Your task to perform on an android device: change the upload size in google photos Image 0: 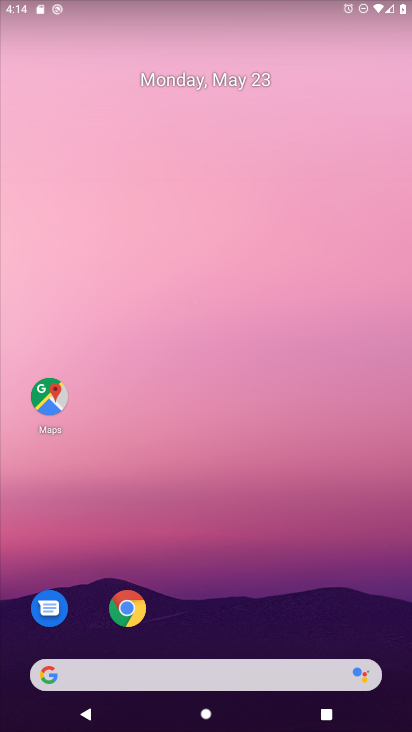
Step 0: drag from (245, 603) to (247, 278)
Your task to perform on an android device: change the upload size in google photos Image 1: 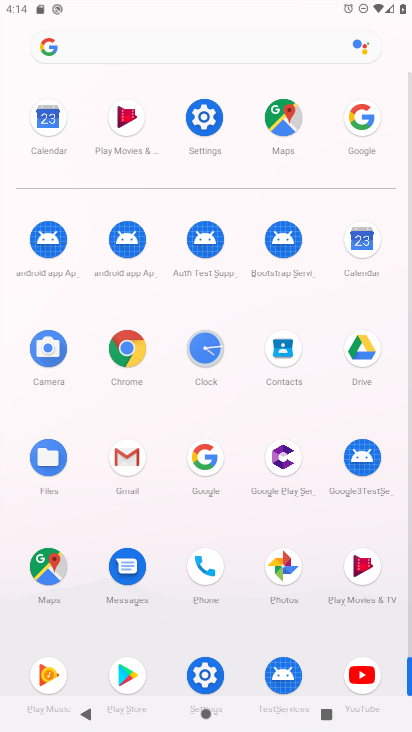
Step 1: click (284, 566)
Your task to perform on an android device: change the upload size in google photos Image 2: 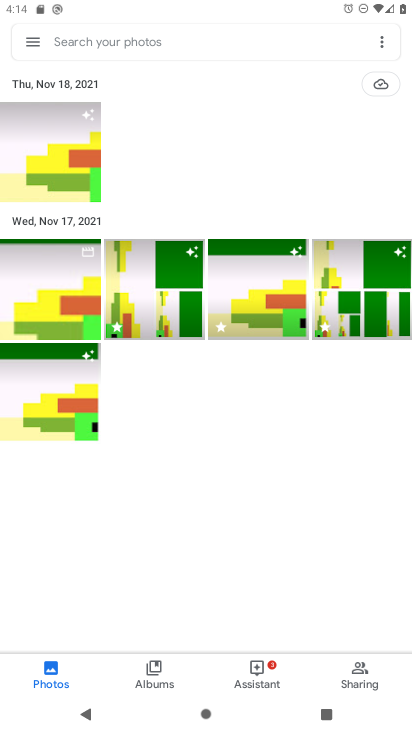
Step 2: click (35, 38)
Your task to perform on an android device: change the upload size in google photos Image 3: 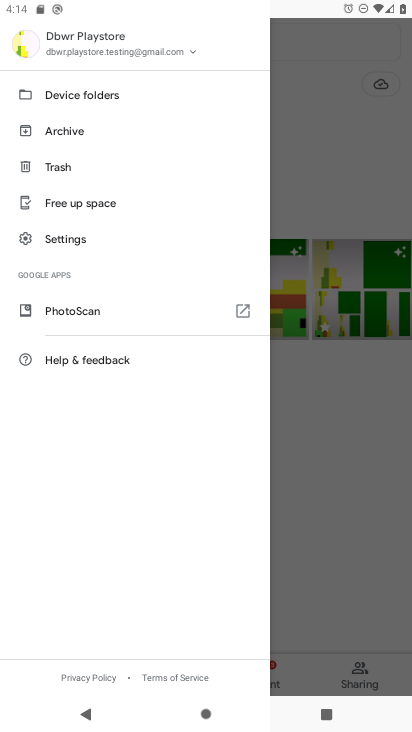
Step 3: click (53, 238)
Your task to perform on an android device: change the upload size in google photos Image 4: 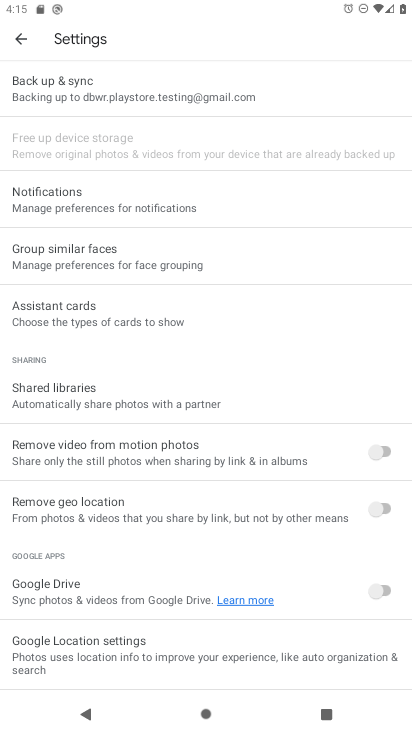
Step 4: click (85, 83)
Your task to perform on an android device: change the upload size in google photos Image 5: 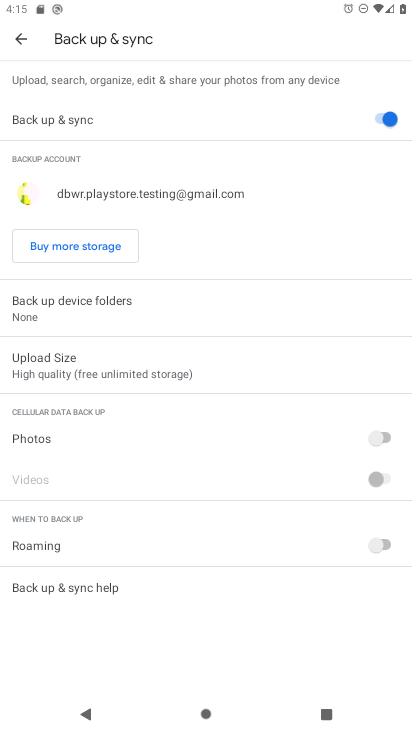
Step 5: click (106, 362)
Your task to perform on an android device: change the upload size in google photos Image 6: 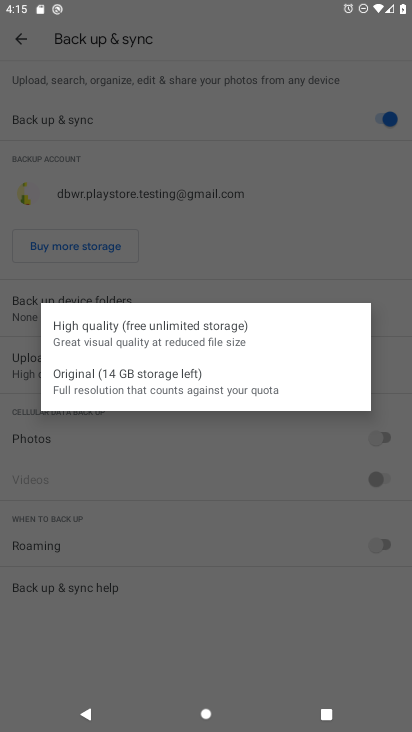
Step 6: click (107, 377)
Your task to perform on an android device: change the upload size in google photos Image 7: 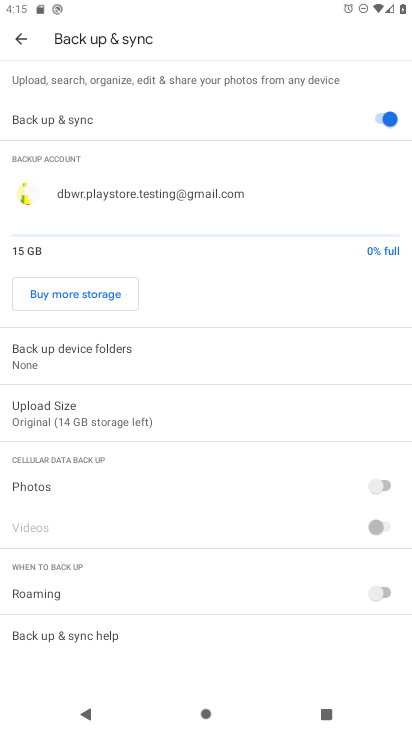
Step 7: task complete